Your task to perform on an android device: Do I have any events this weekend? Image 0: 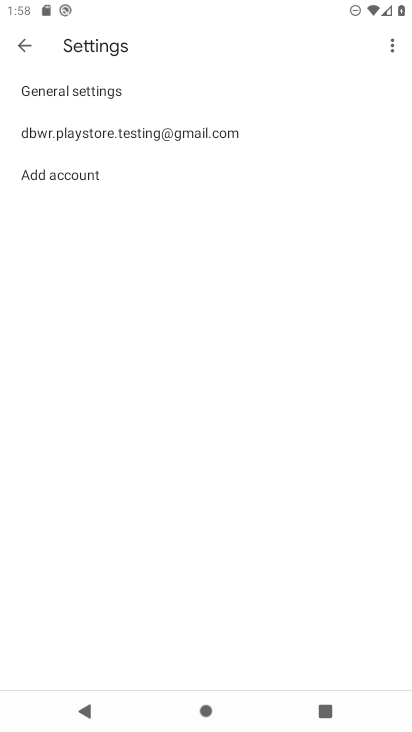
Step 0: press home button
Your task to perform on an android device: Do I have any events this weekend? Image 1: 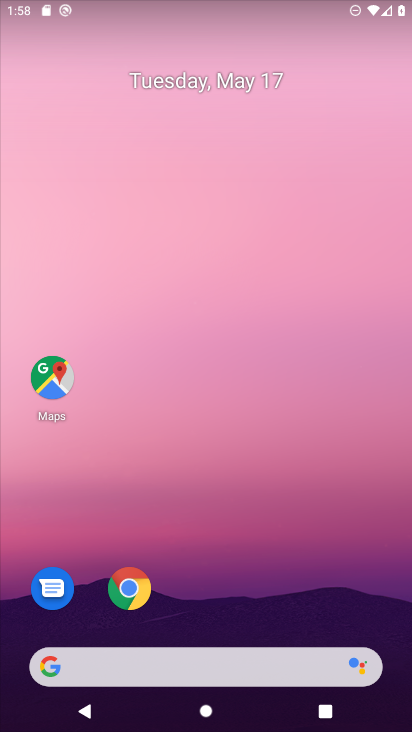
Step 1: drag from (213, 610) to (53, 113)
Your task to perform on an android device: Do I have any events this weekend? Image 2: 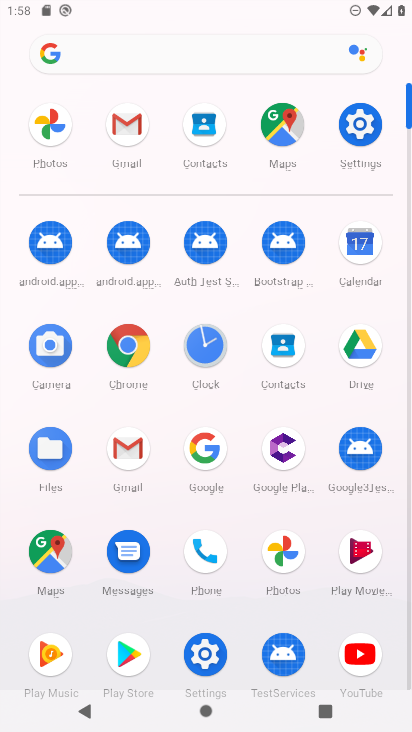
Step 2: click (371, 246)
Your task to perform on an android device: Do I have any events this weekend? Image 3: 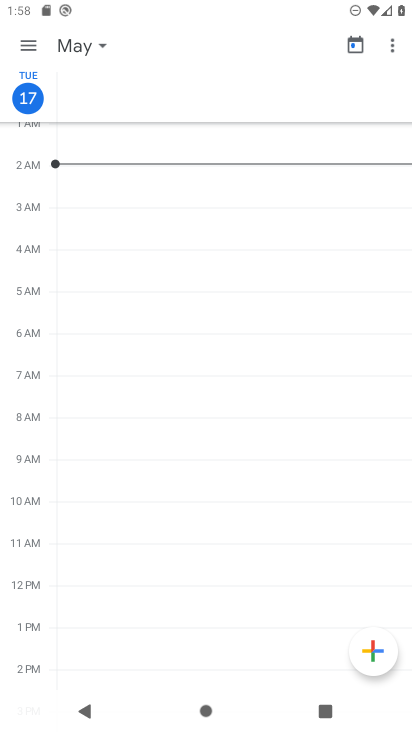
Step 3: click (79, 53)
Your task to perform on an android device: Do I have any events this weekend? Image 4: 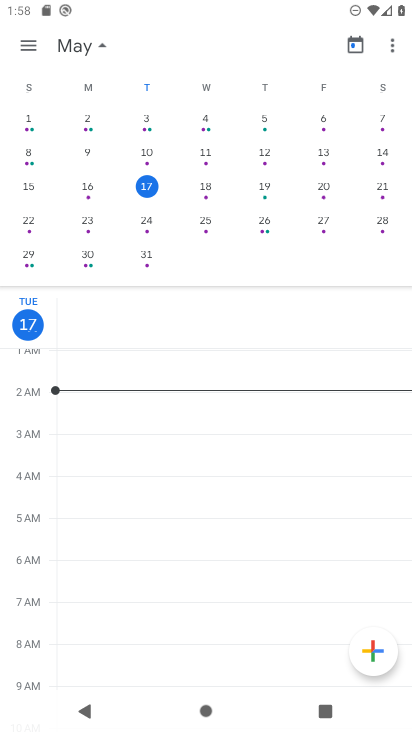
Step 4: click (25, 47)
Your task to perform on an android device: Do I have any events this weekend? Image 5: 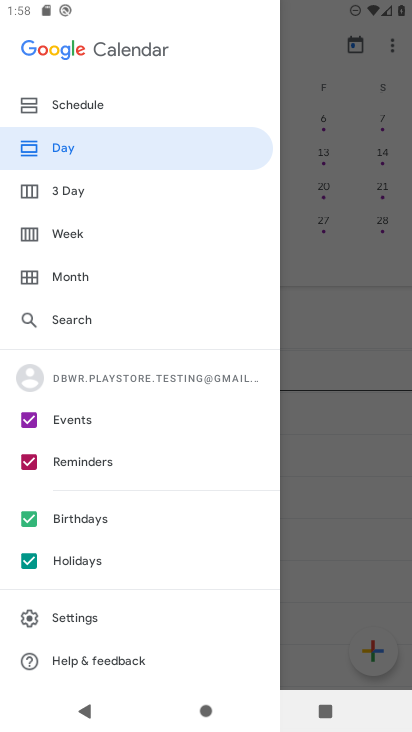
Step 5: click (69, 231)
Your task to perform on an android device: Do I have any events this weekend? Image 6: 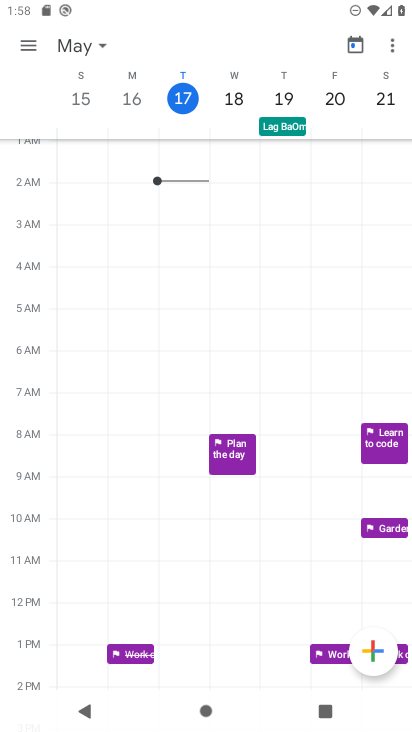
Step 6: task complete